Your task to perform on an android device: Search for hotels in Washington DC Image 0: 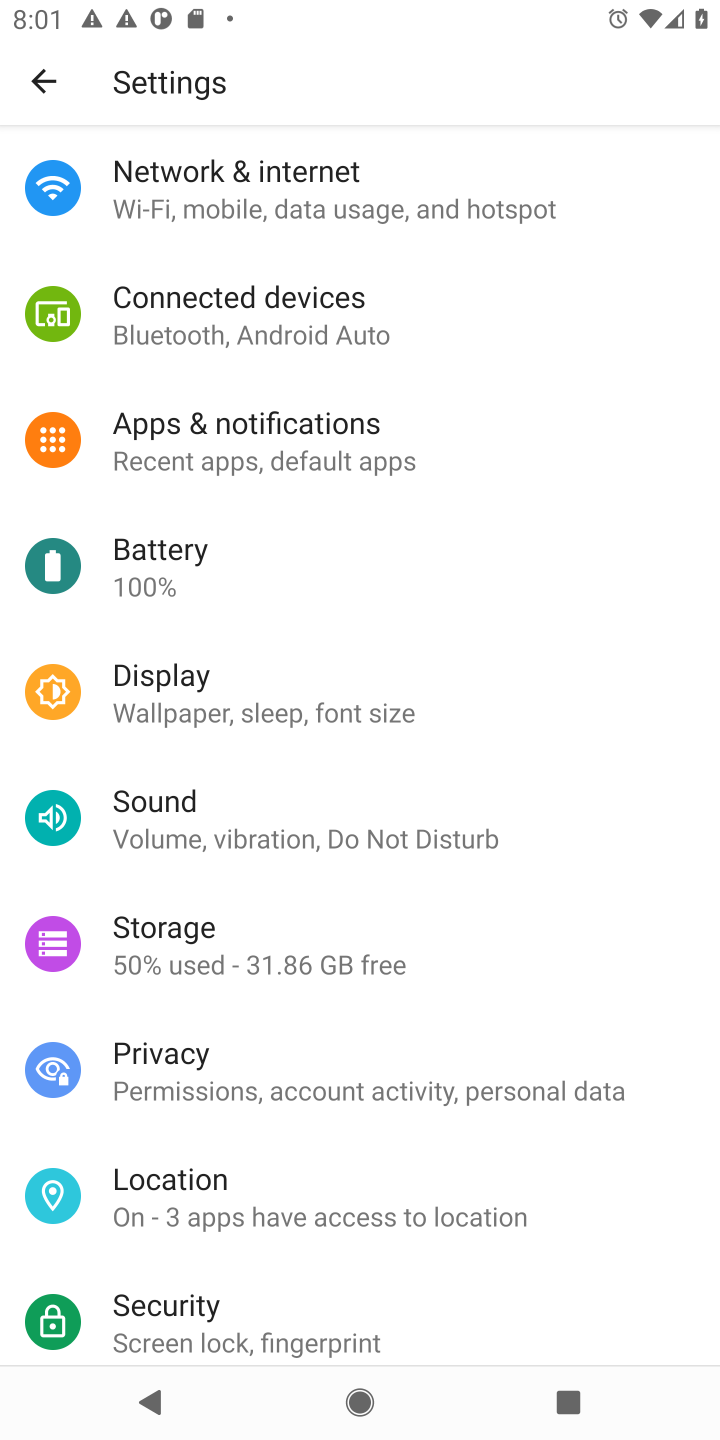
Step 0: press home button
Your task to perform on an android device: Search for hotels in Washington DC Image 1: 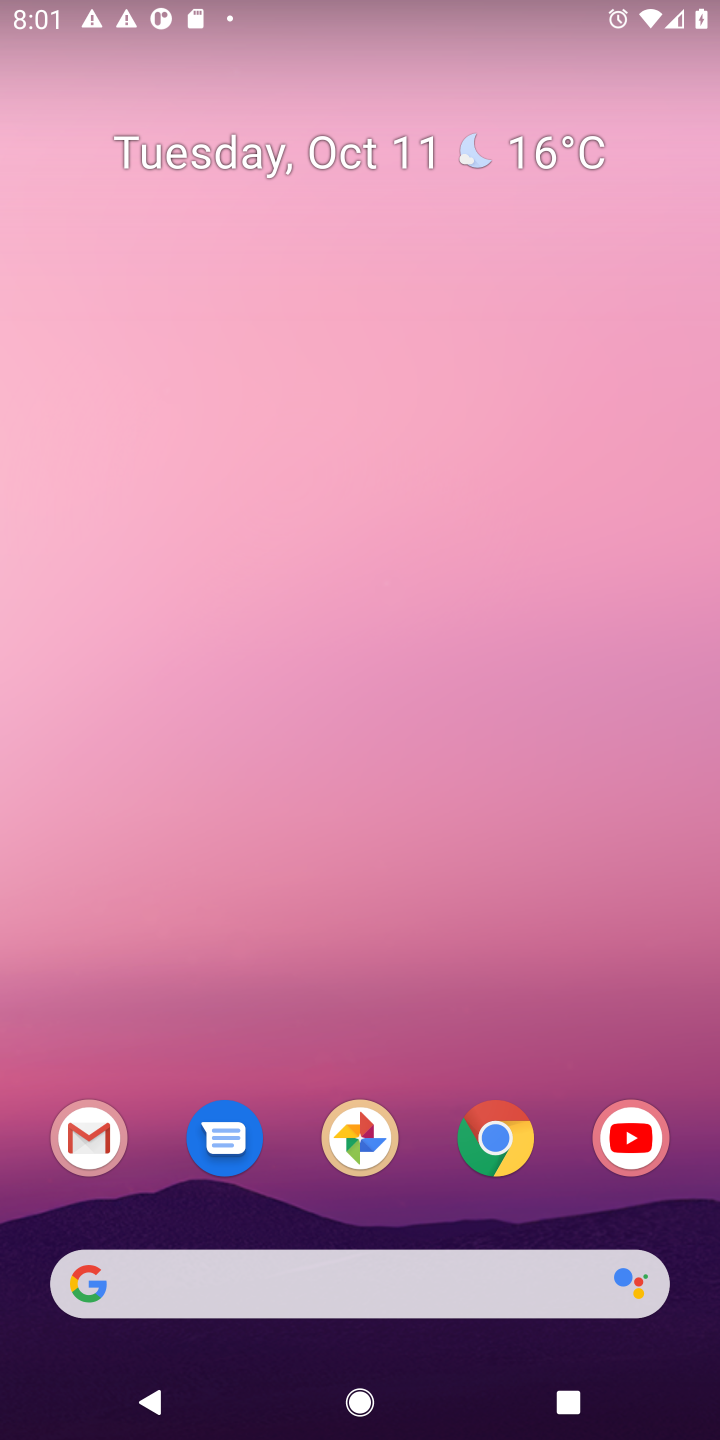
Step 1: click (261, 1268)
Your task to perform on an android device: Search for hotels in Washington DC Image 2: 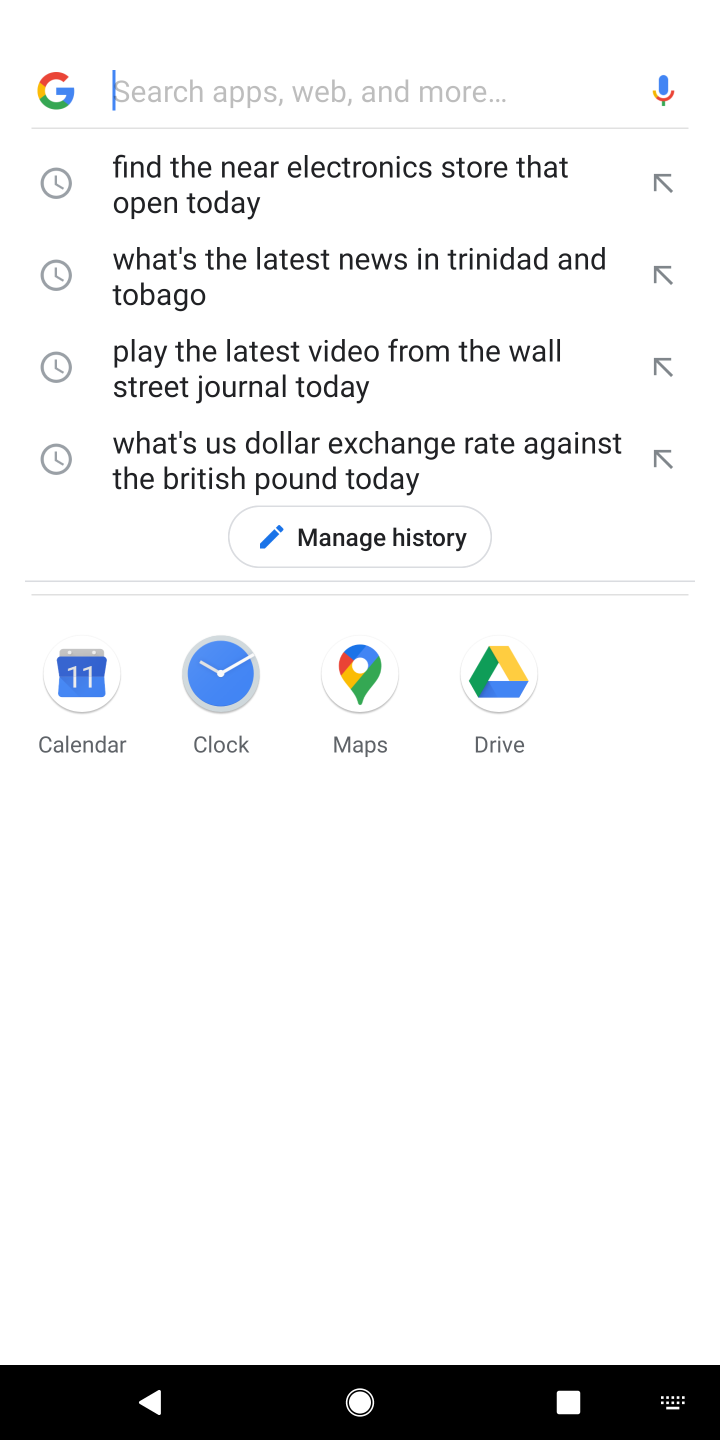
Step 2: type "Search for hotels in Washington DC"
Your task to perform on an android device: Search for hotels in Washington DC Image 3: 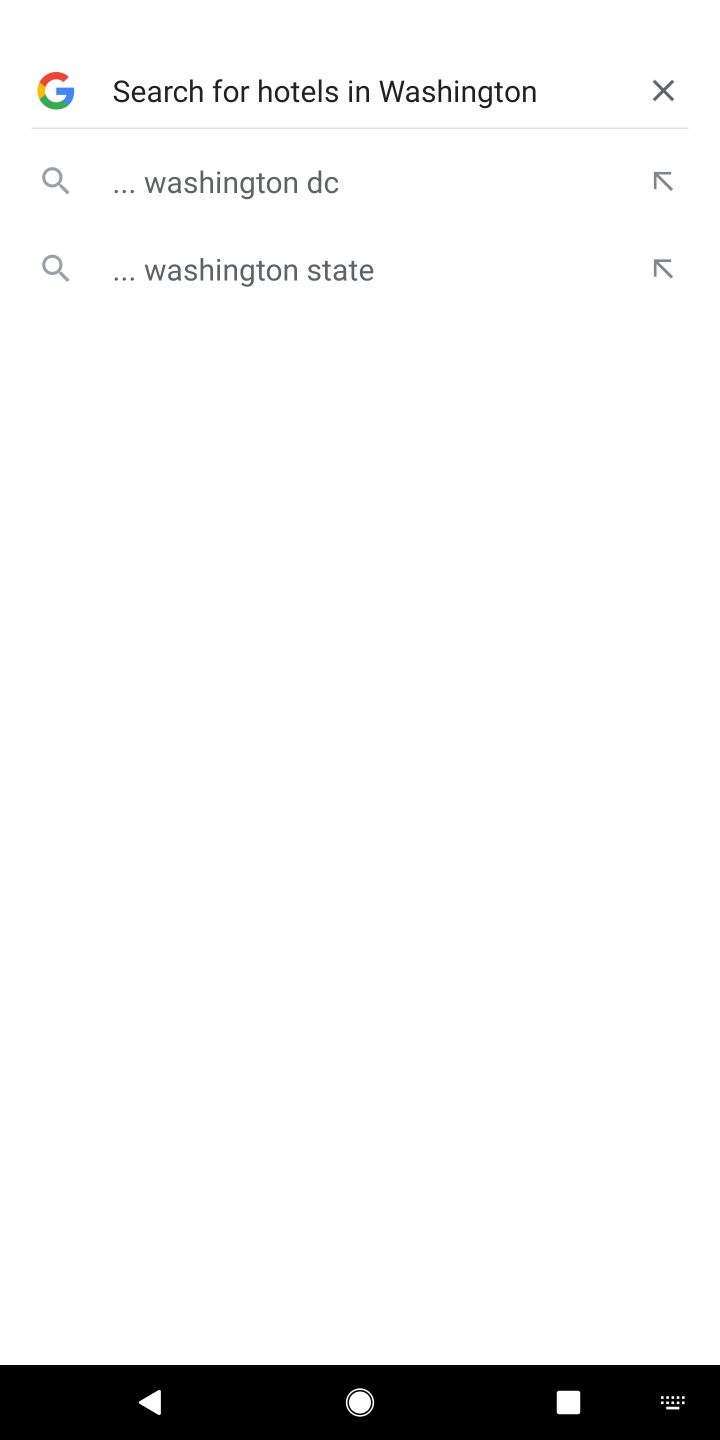
Step 3: click (258, 176)
Your task to perform on an android device: Search for hotels in Washington DC Image 4: 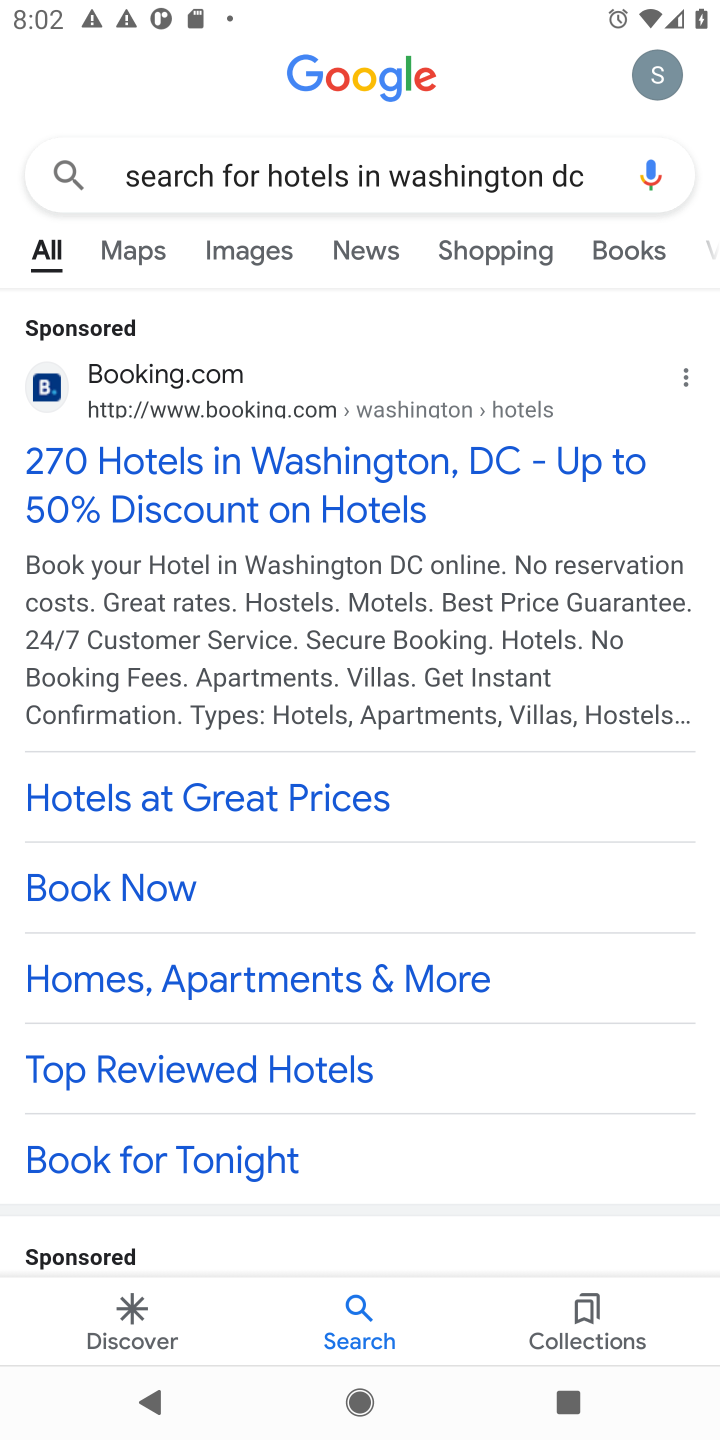
Step 4: click (303, 467)
Your task to perform on an android device: Search for hotels in Washington DC Image 5: 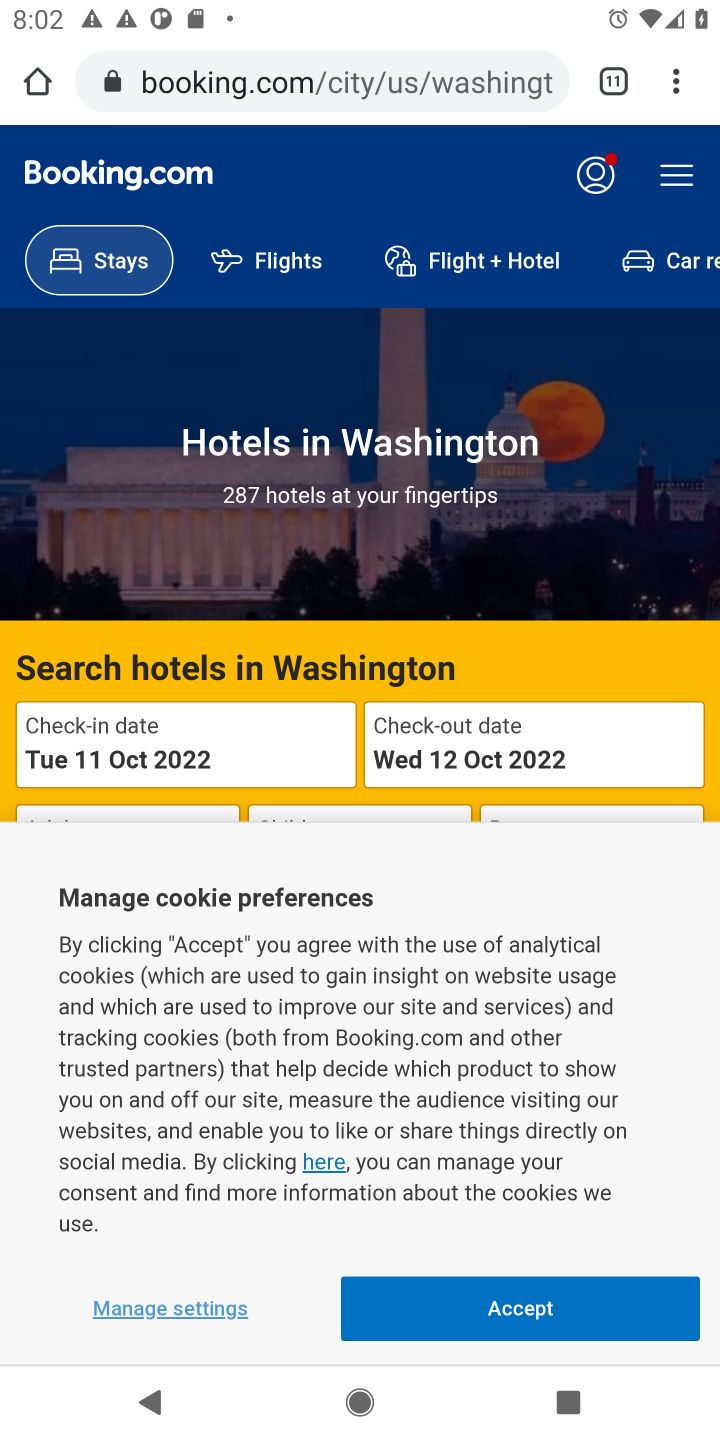
Step 5: click (408, 1300)
Your task to perform on an android device: Search for hotels in Washington DC Image 6: 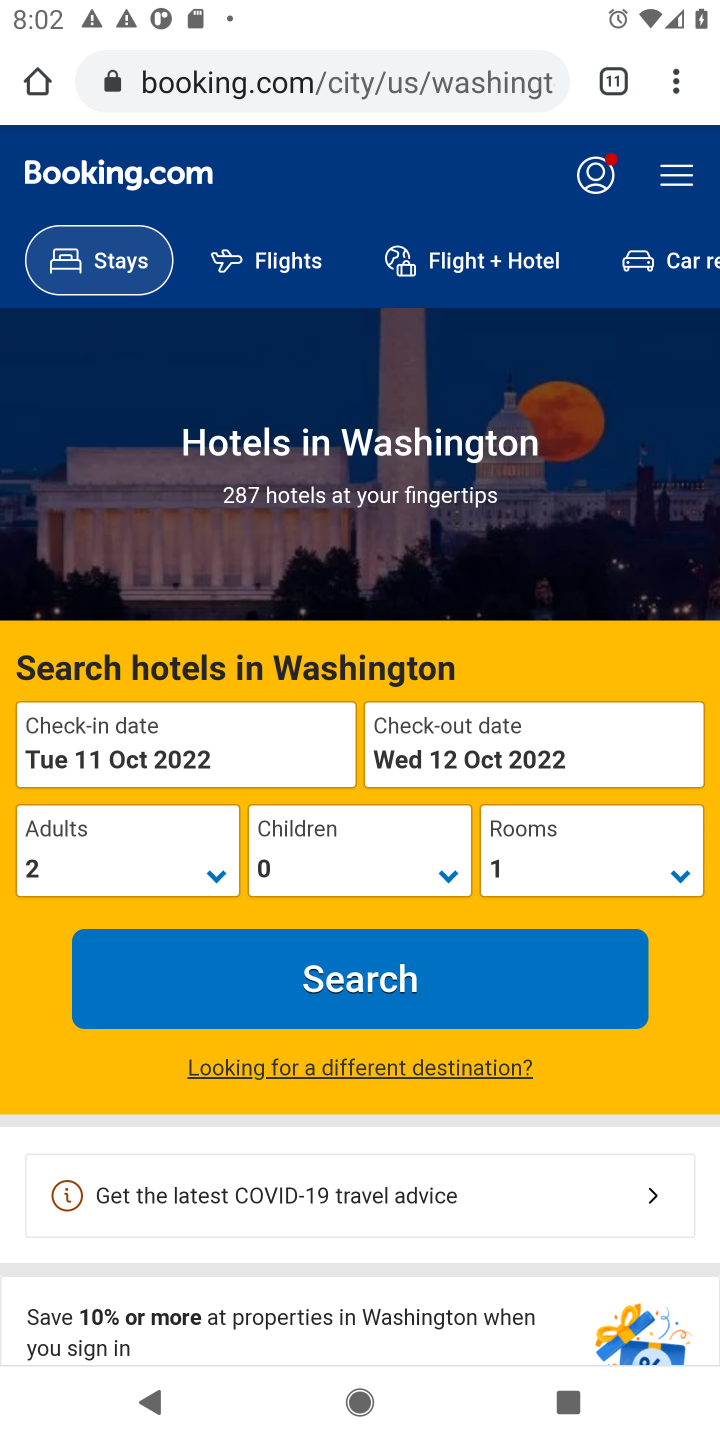
Step 6: click (374, 981)
Your task to perform on an android device: Search for hotels in Washington DC Image 7: 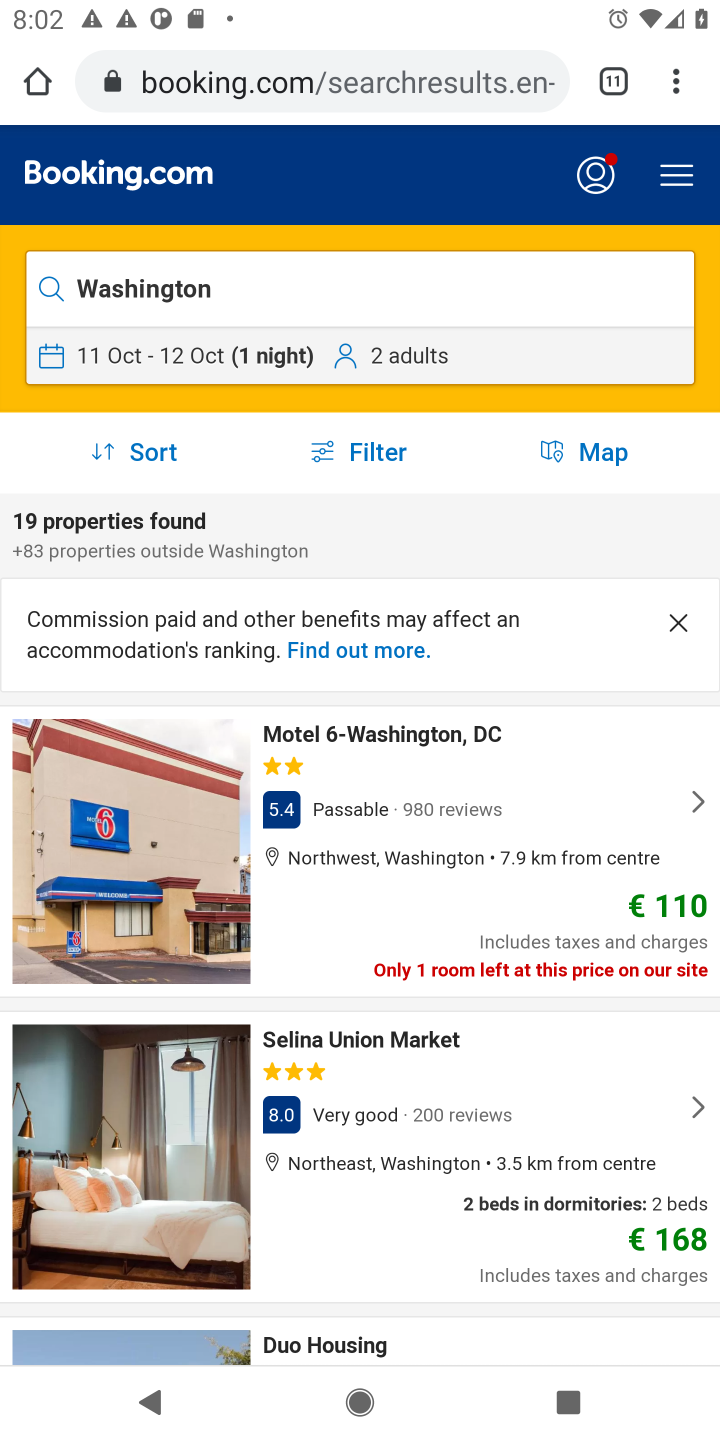
Step 7: task complete